Your task to perform on an android device: See recent photos Image 0: 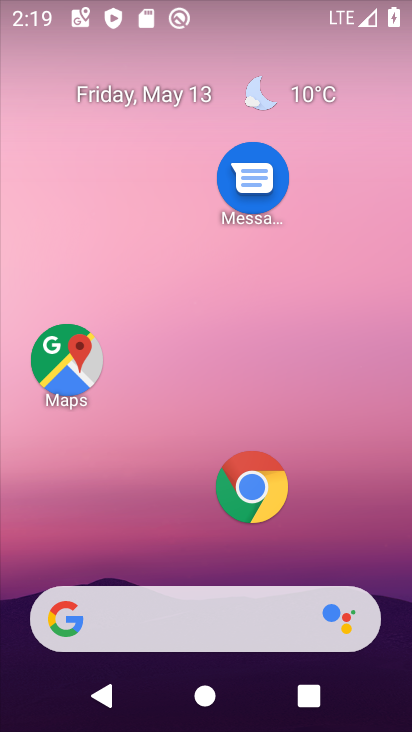
Step 0: drag from (146, 553) to (117, 202)
Your task to perform on an android device: See recent photos Image 1: 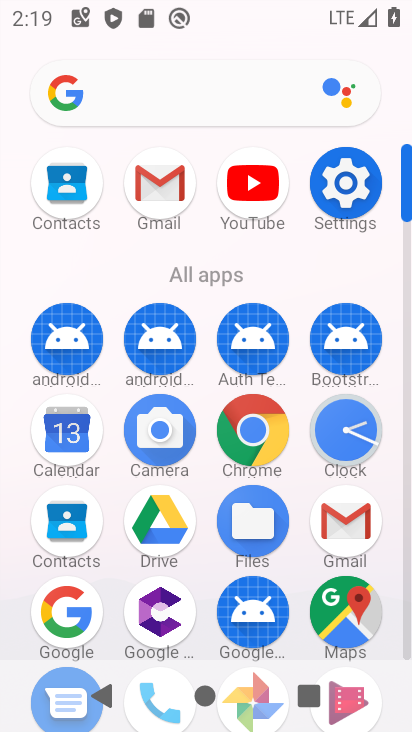
Step 1: click (247, 696)
Your task to perform on an android device: See recent photos Image 2: 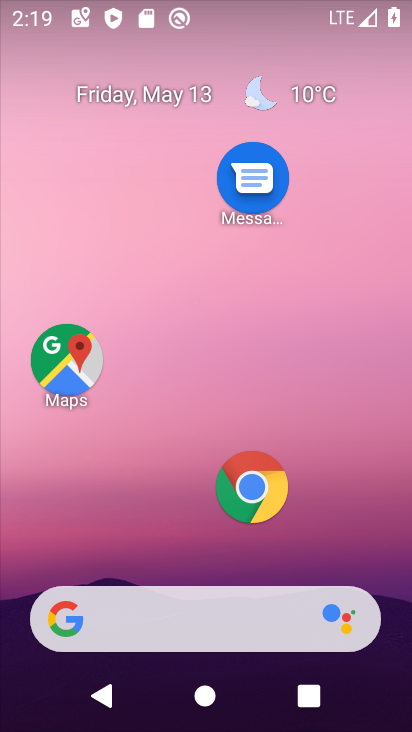
Step 2: drag from (127, 551) to (118, 172)
Your task to perform on an android device: See recent photos Image 3: 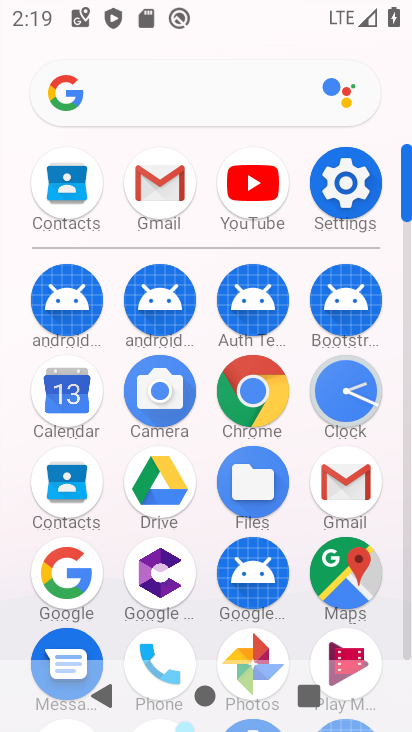
Step 3: click (260, 666)
Your task to perform on an android device: See recent photos Image 4: 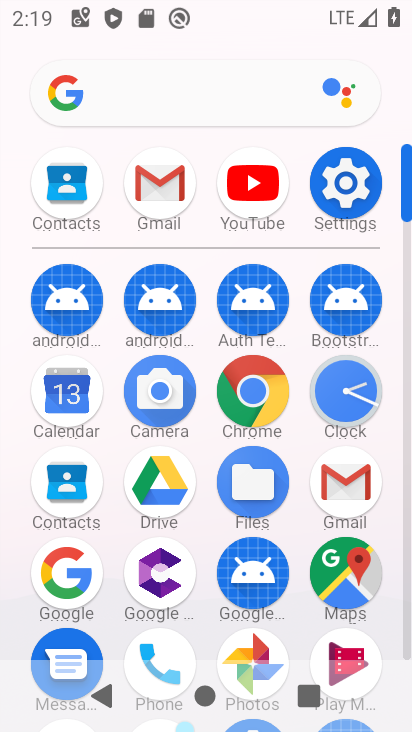
Step 4: click (257, 658)
Your task to perform on an android device: See recent photos Image 5: 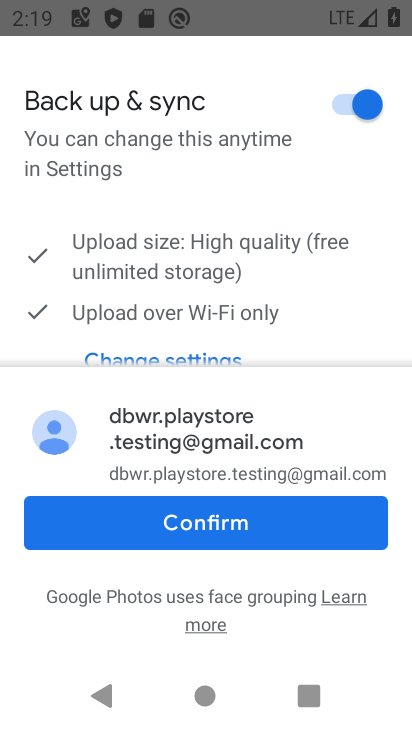
Step 5: click (234, 526)
Your task to perform on an android device: See recent photos Image 6: 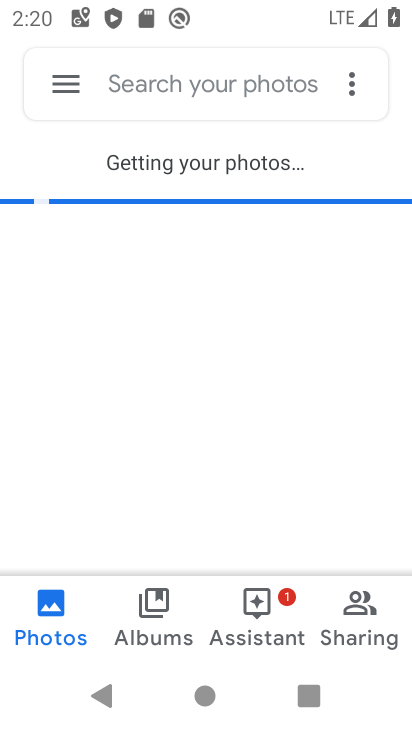
Step 6: click (160, 620)
Your task to perform on an android device: See recent photos Image 7: 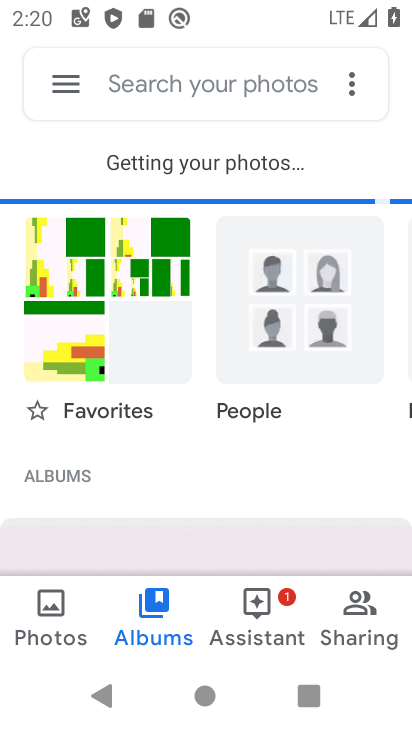
Step 7: click (85, 318)
Your task to perform on an android device: See recent photos Image 8: 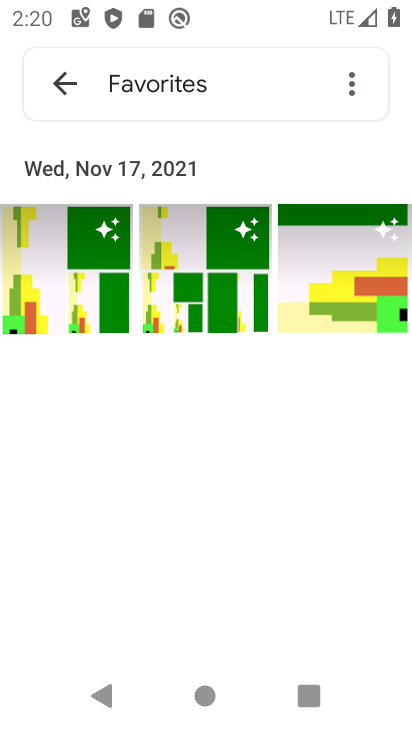
Step 8: task complete